Your task to perform on an android device: Go to network settings Image 0: 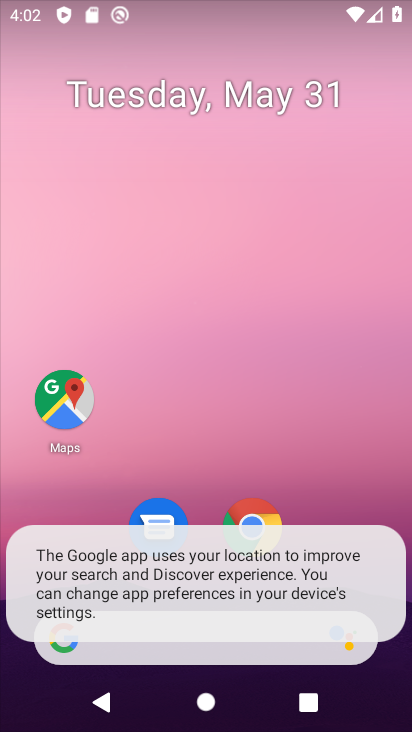
Step 0: drag from (79, 570) to (200, 176)
Your task to perform on an android device: Go to network settings Image 1: 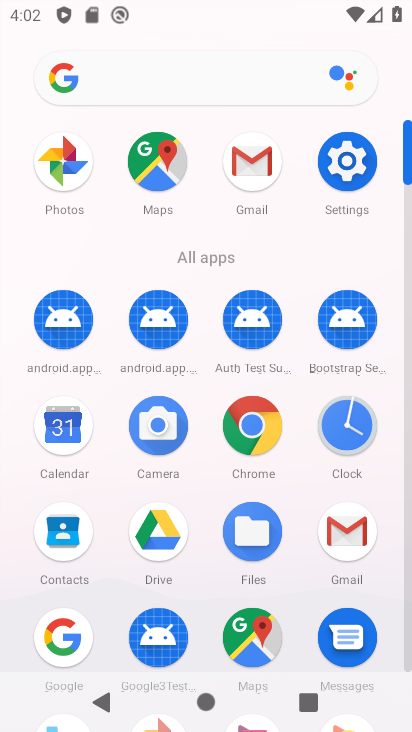
Step 1: drag from (147, 608) to (211, 351)
Your task to perform on an android device: Go to network settings Image 2: 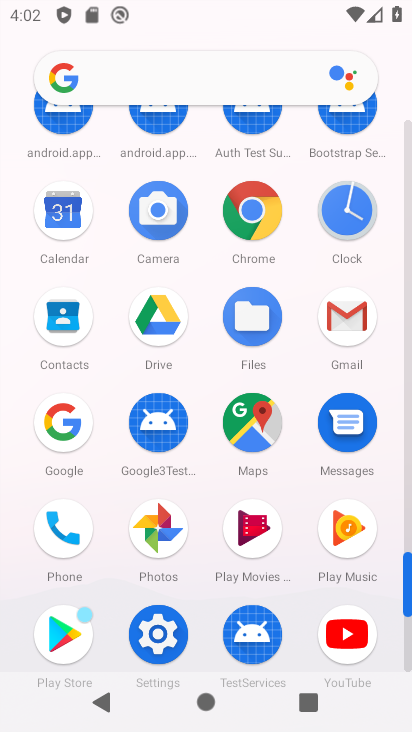
Step 2: click (158, 638)
Your task to perform on an android device: Go to network settings Image 3: 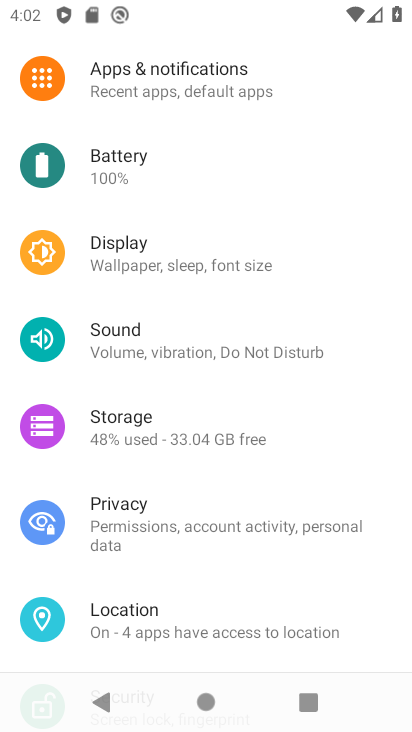
Step 3: drag from (244, 164) to (220, 585)
Your task to perform on an android device: Go to network settings Image 4: 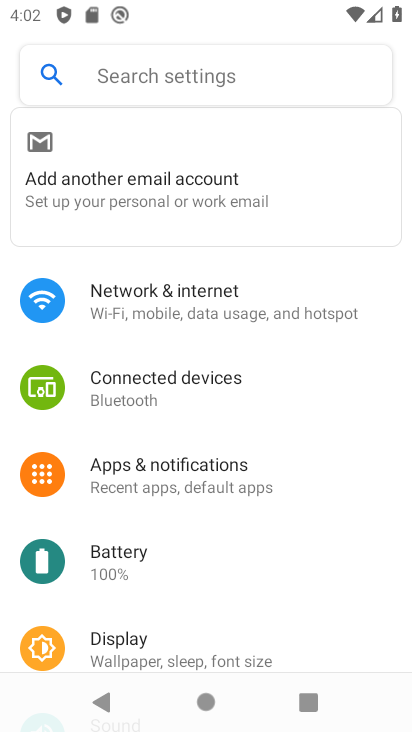
Step 4: click (222, 301)
Your task to perform on an android device: Go to network settings Image 5: 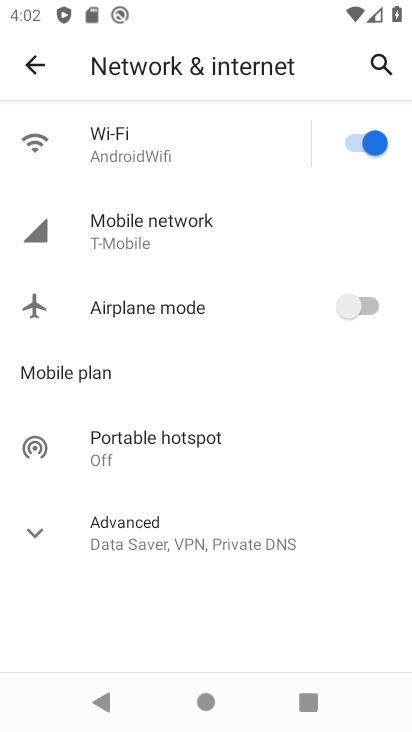
Step 5: click (233, 243)
Your task to perform on an android device: Go to network settings Image 6: 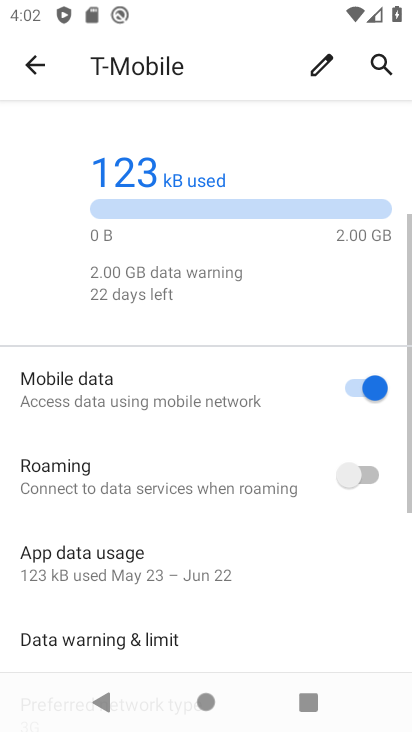
Step 6: task complete